Your task to perform on an android device: search for starred emails in the gmail app Image 0: 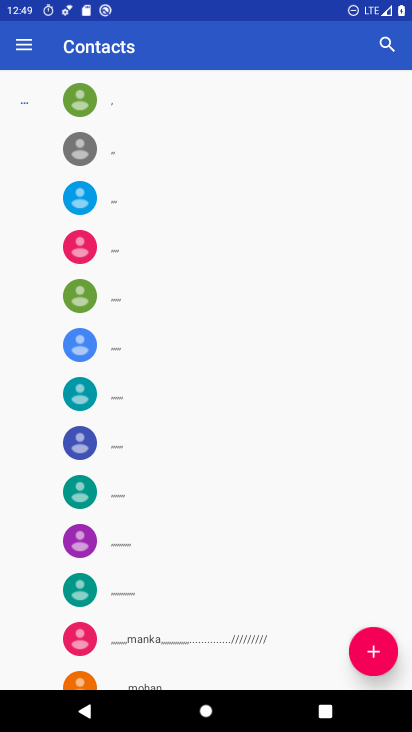
Step 0: press home button
Your task to perform on an android device: search for starred emails in the gmail app Image 1: 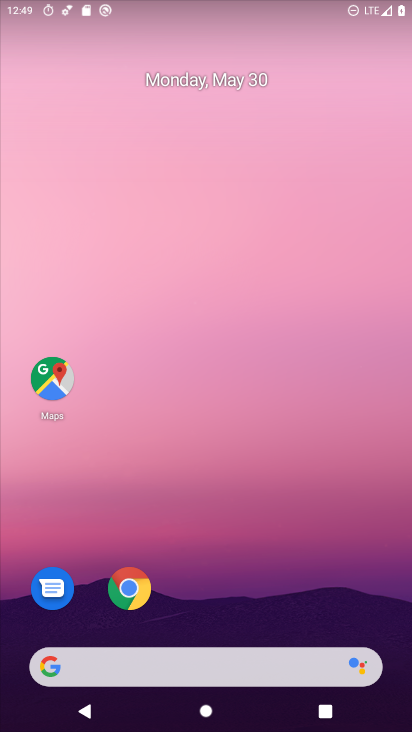
Step 1: drag from (204, 573) to (239, 200)
Your task to perform on an android device: search for starred emails in the gmail app Image 2: 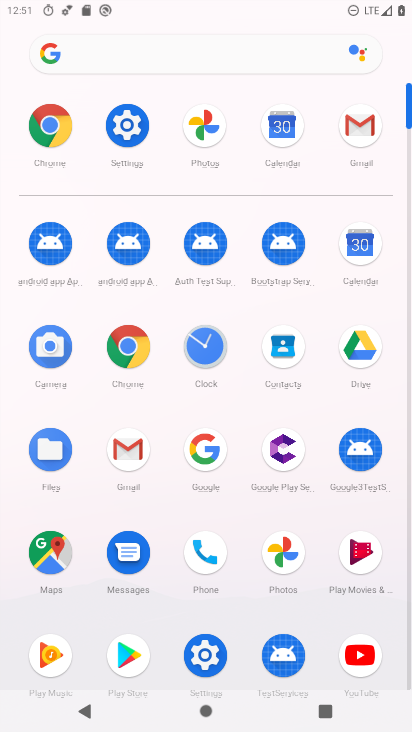
Step 2: click (125, 446)
Your task to perform on an android device: search for starred emails in the gmail app Image 3: 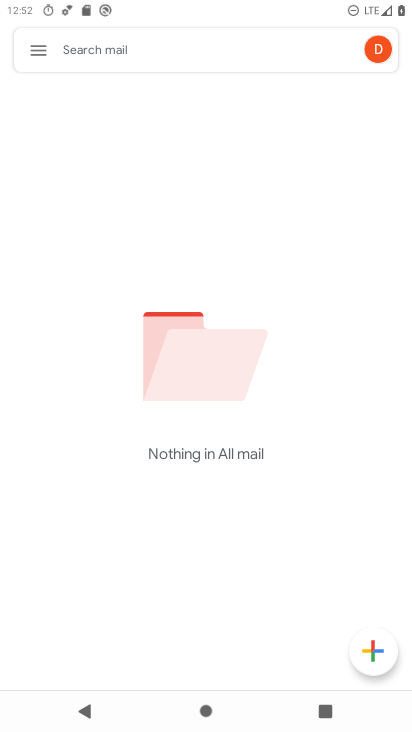
Step 3: click (44, 46)
Your task to perform on an android device: search for starred emails in the gmail app Image 4: 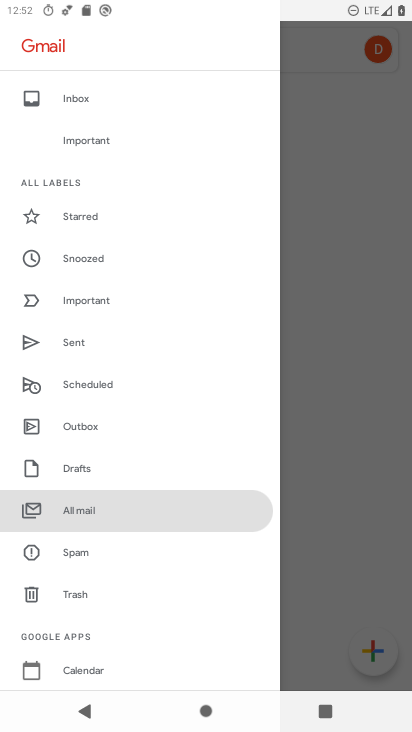
Step 4: click (104, 216)
Your task to perform on an android device: search for starred emails in the gmail app Image 5: 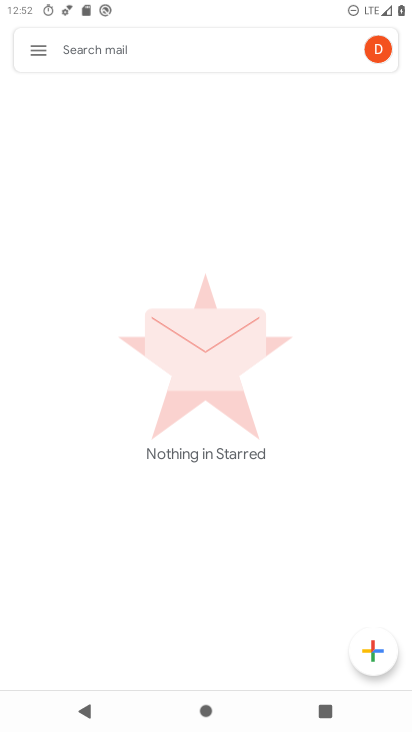
Step 5: task complete